Your task to perform on an android device: turn notification dots on Image 0: 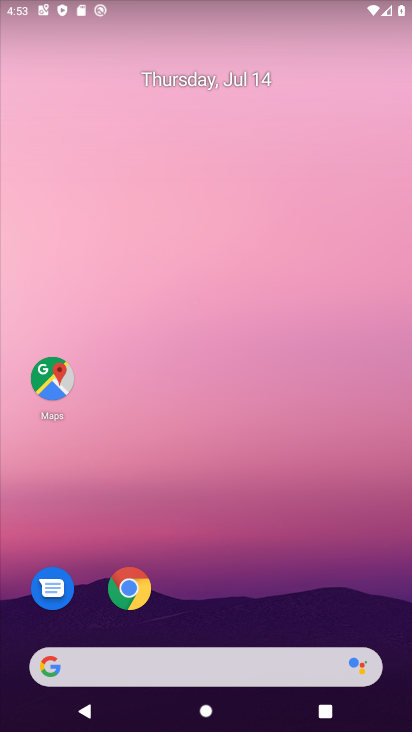
Step 0: drag from (214, 645) to (251, 325)
Your task to perform on an android device: turn notification dots on Image 1: 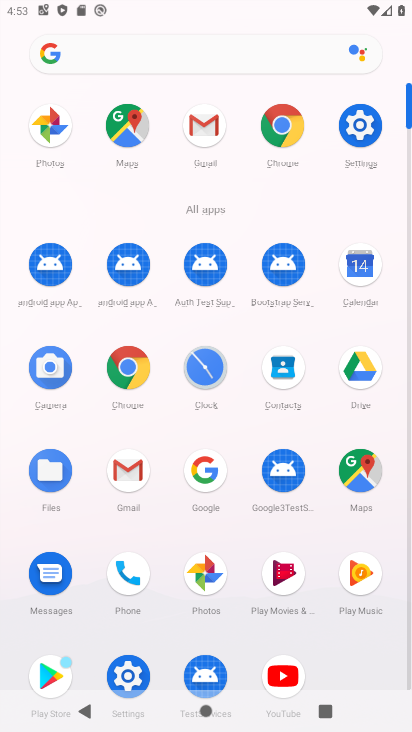
Step 1: click (129, 680)
Your task to perform on an android device: turn notification dots on Image 2: 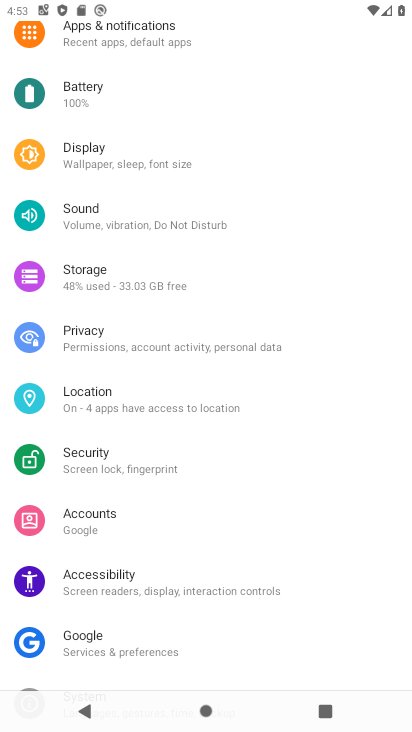
Step 2: click (121, 36)
Your task to perform on an android device: turn notification dots on Image 3: 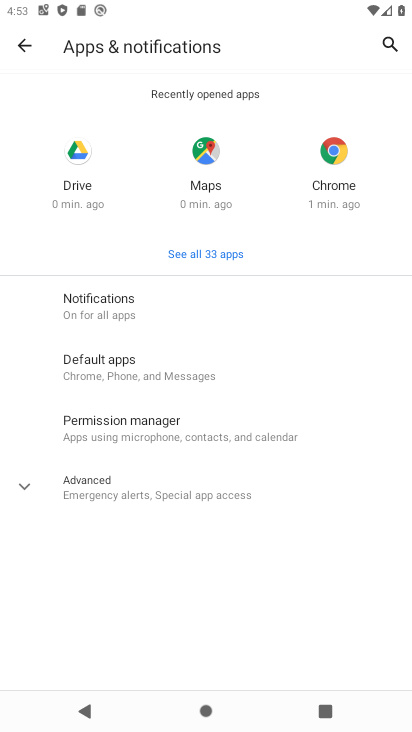
Step 3: click (94, 489)
Your task to perform on an android device: turn notification dots on Image 4: 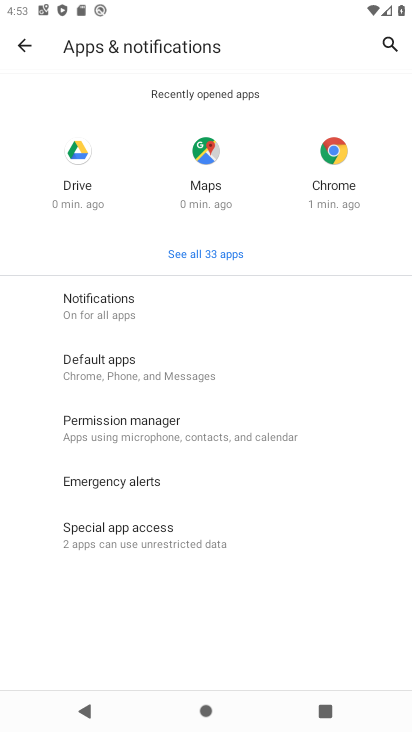
Step 4: click (99, 296)
Your task to perform on an android device: turn notification dots on Image 5: 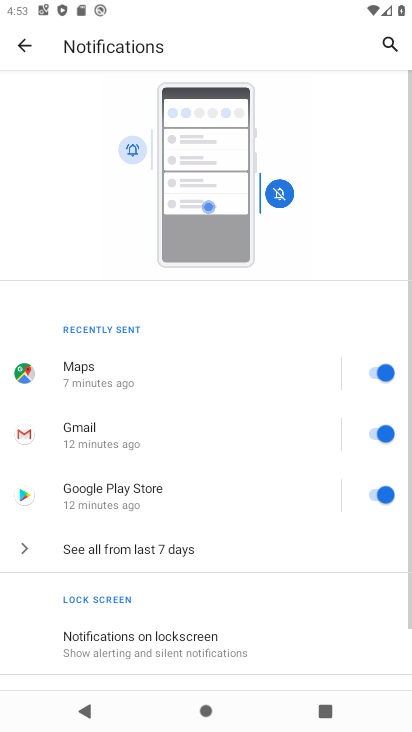
Step 5: drag from (193, 642) to (204, 339)
Your task to perform on an android device: turn notification dots on Image 6: 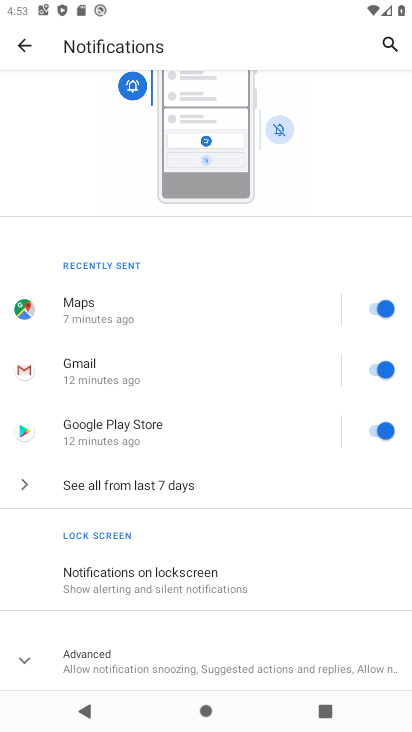
Step 6: click (97, 665)
Your task to perform on an android device: turn notification dots on Image 7: 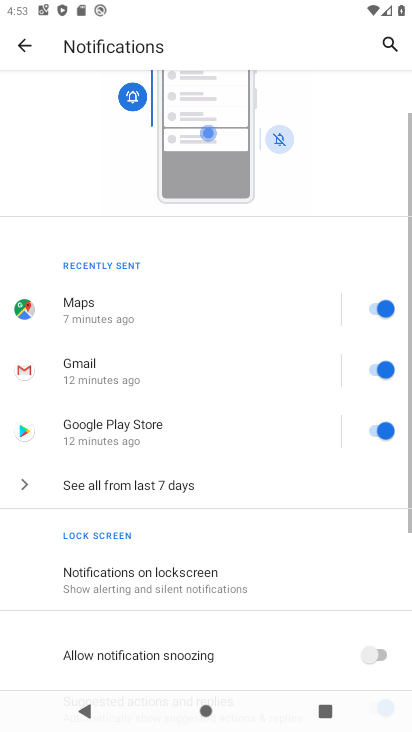
Step 7: task complete